Your task to perform on an android device: Search for pizza restaurants on Maps Image 0: 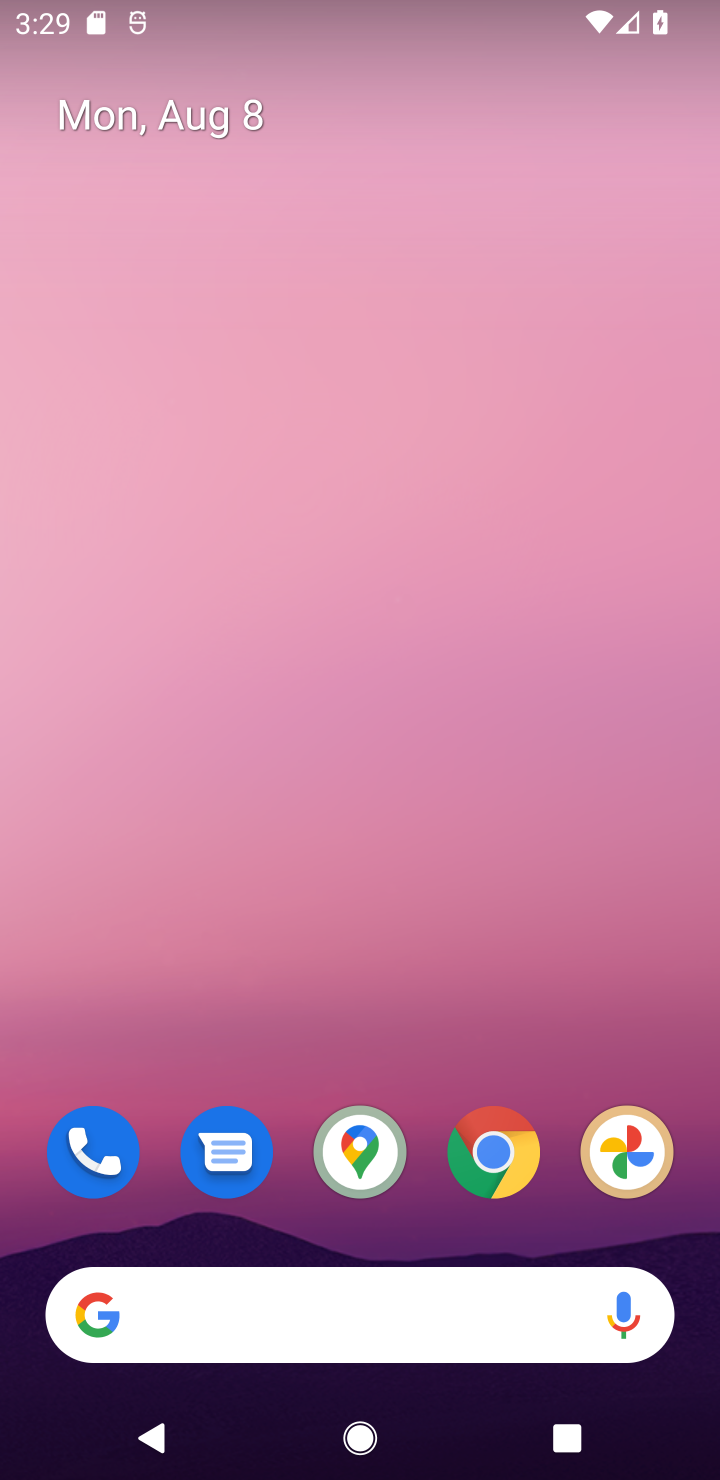
Step 0: click (357, 1170)
Your task to perform on an android device: Search for pizza restaurants on Maps Image 1: 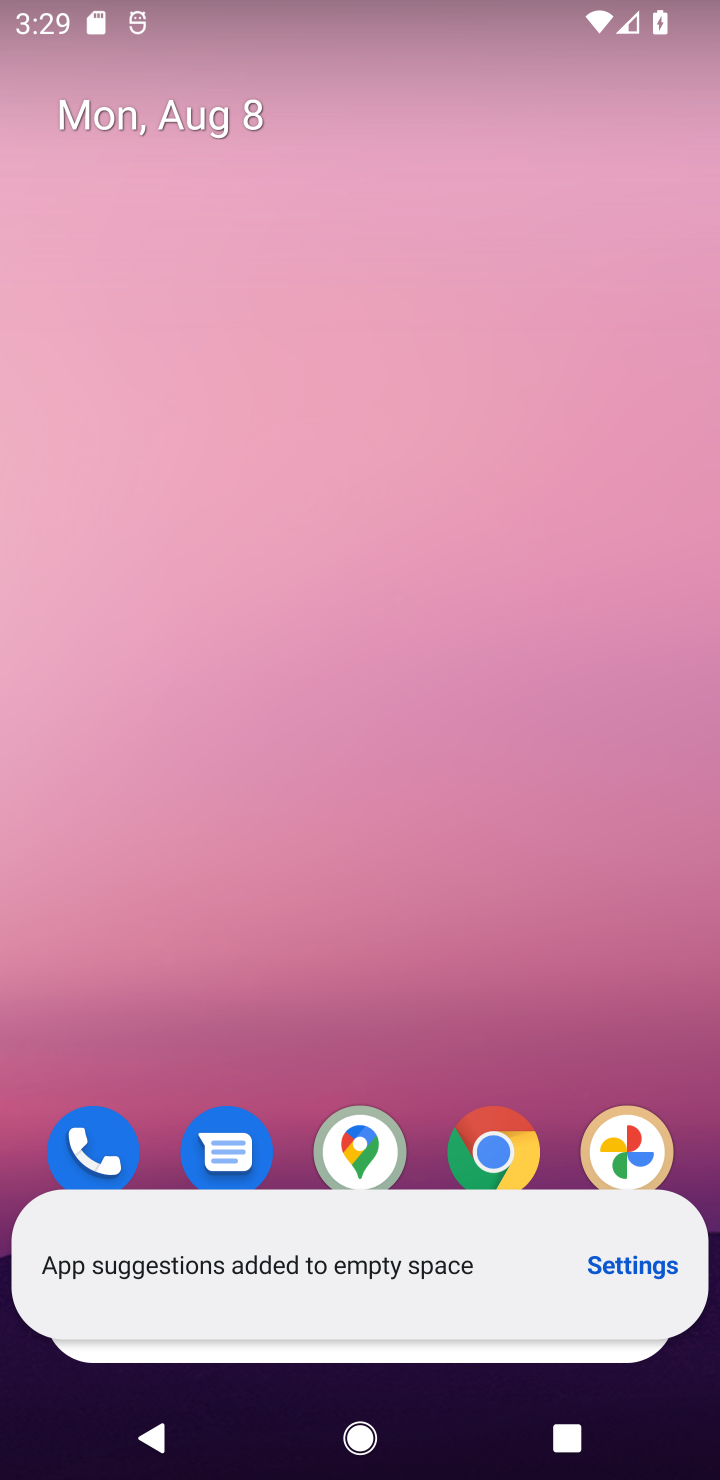
Step 1: click (375, 1149)
Your task to perform on an android device: Search for pizza restaurants on Maps Image 2: 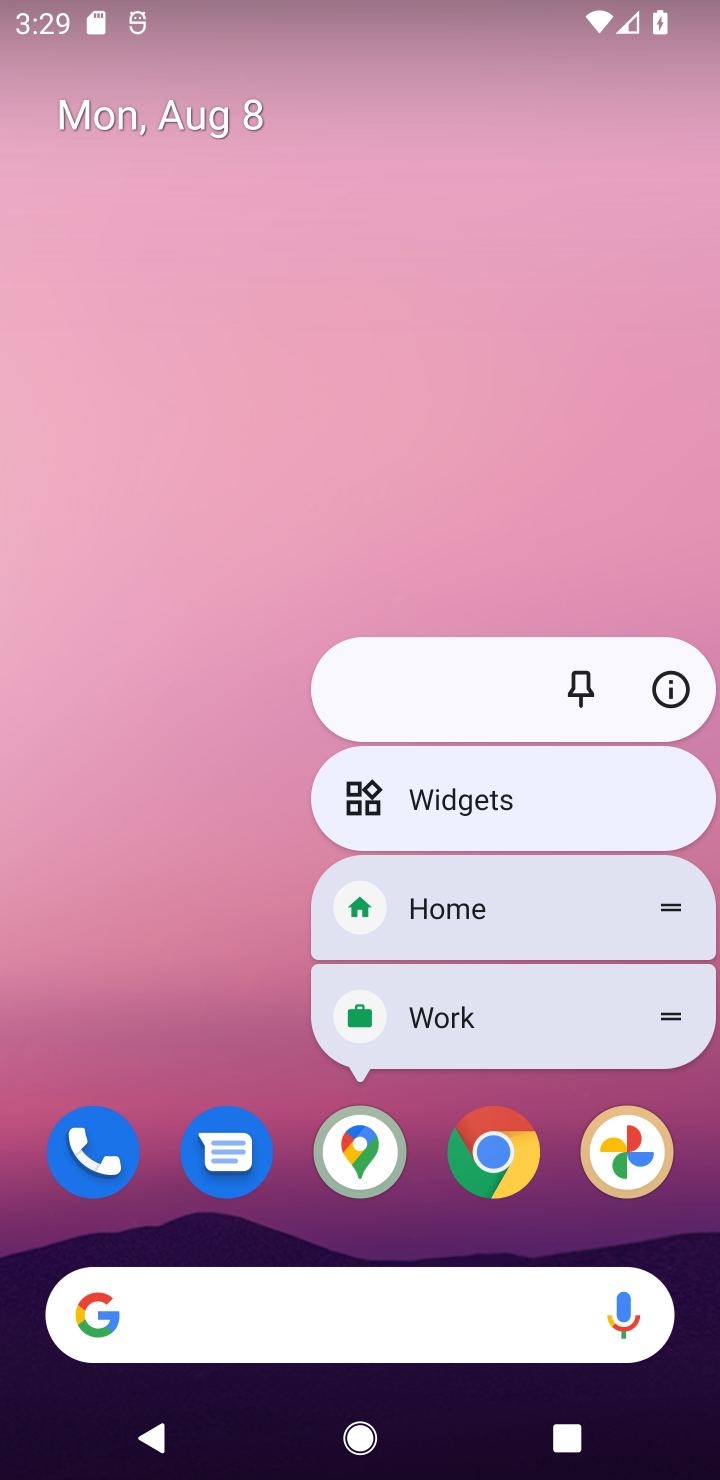
Step 2: click (363, 1150)
Your task to perform on an android device: Search for pizza restaurants on Maps Image 3: 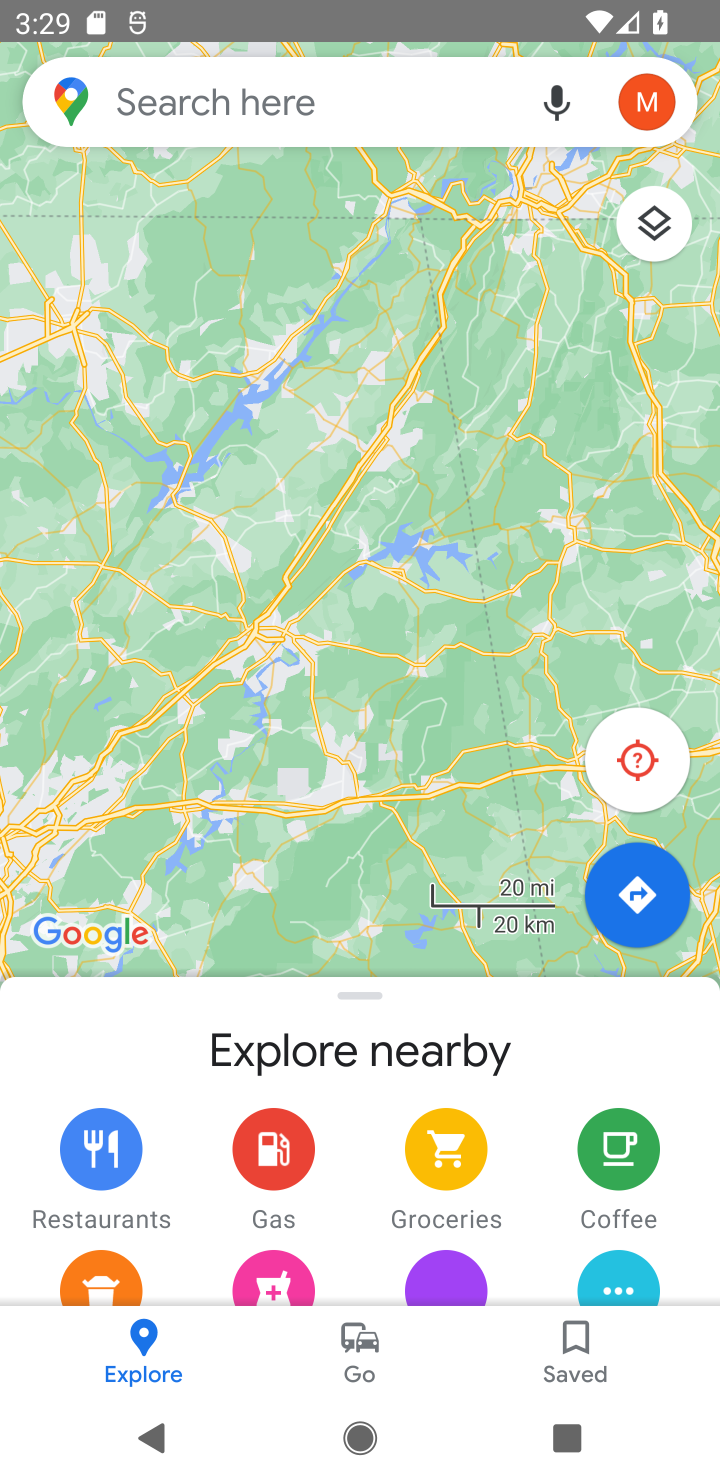
Step 3: click (188, 82)
Your task to perform on an android device: Search for pizza restaurants on Maps Image 4: 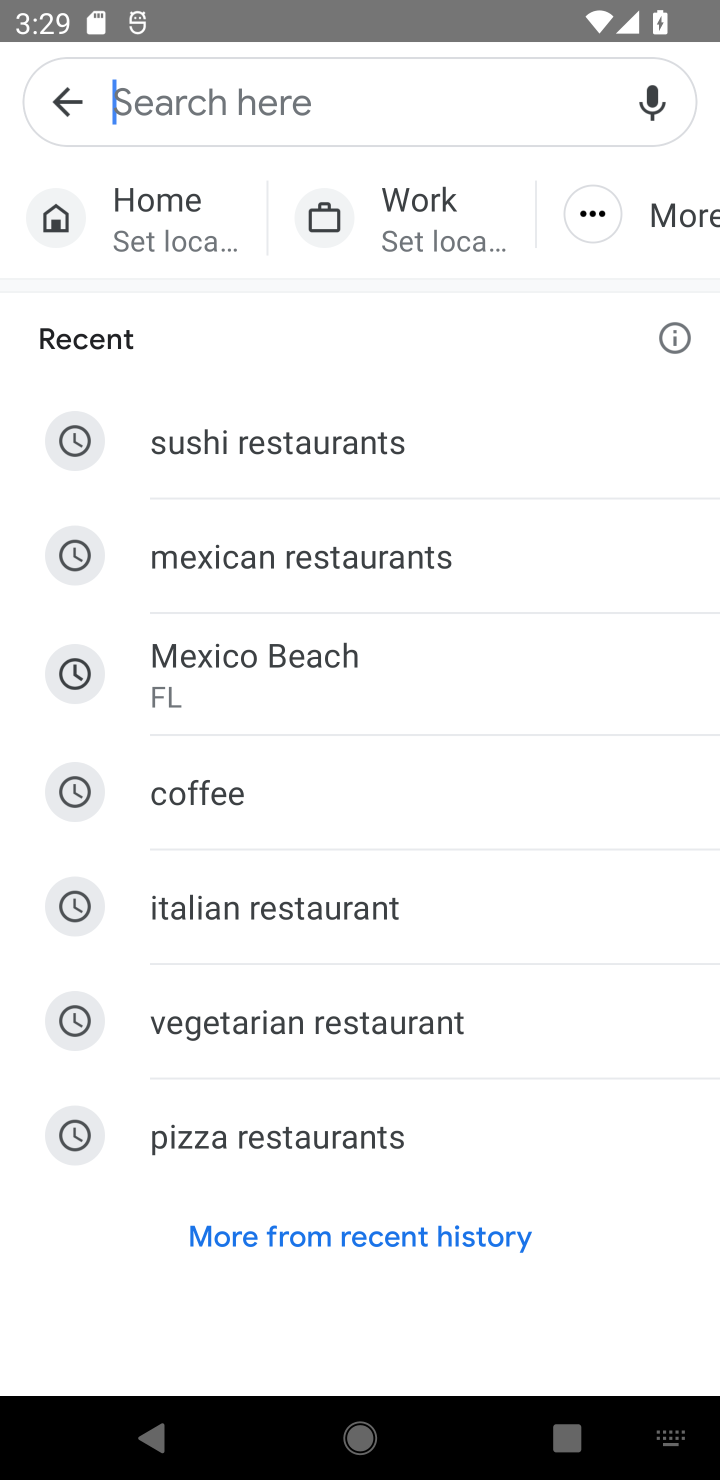
Step 4: click (212, 1116)
Your task to perform on an android device: Search for pizza restaurants on Maps Image 5: 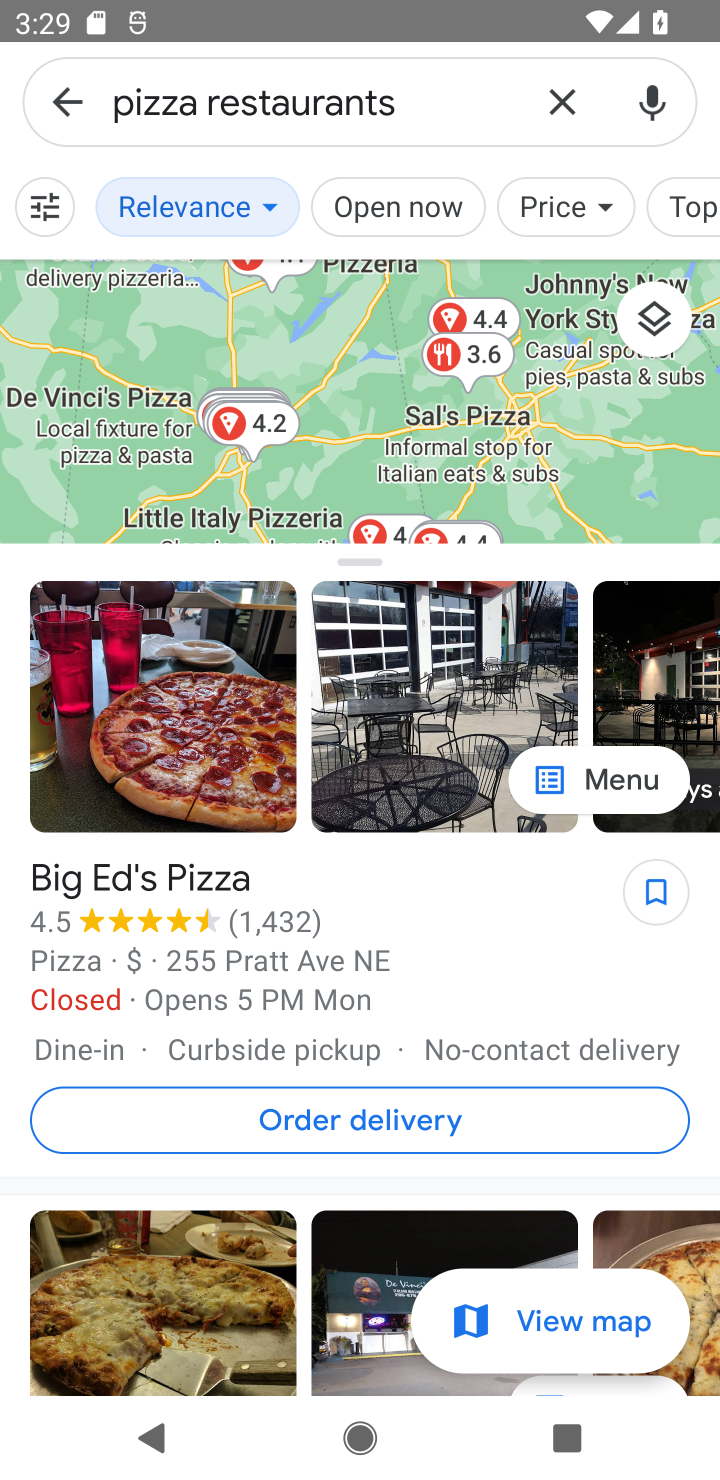
Step 5: task complete